Your task to perform on an android device: Open location settings Image 0: 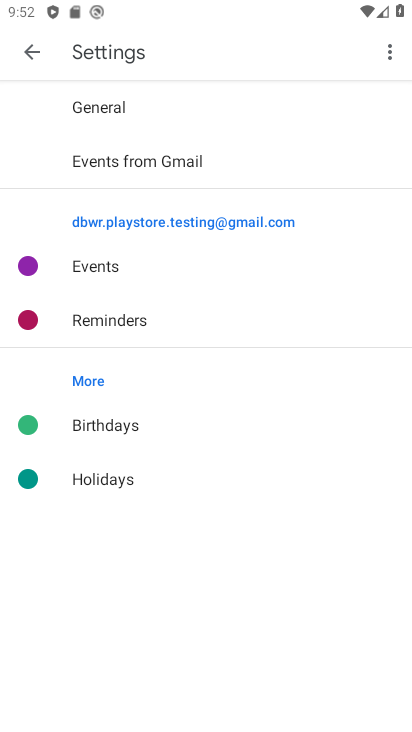
Step 0: press home button
Your task to perform on an android device: Open location settings Image 1: 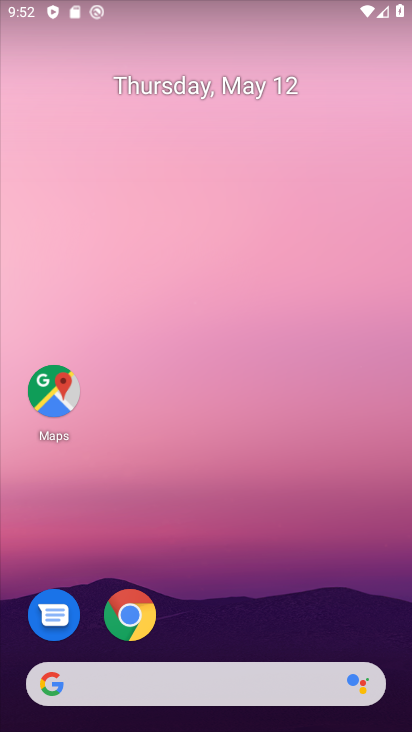
Step 1: drag from (210, 729) to (222, 144)
Your task to perform on an android device: Open location settings Image 2: 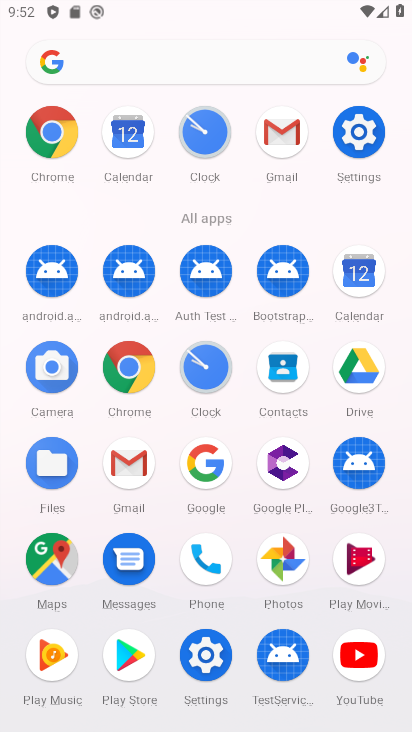
Step 2: click (372, 132)
Your task to perform on an android device: Open location settings Image 3: 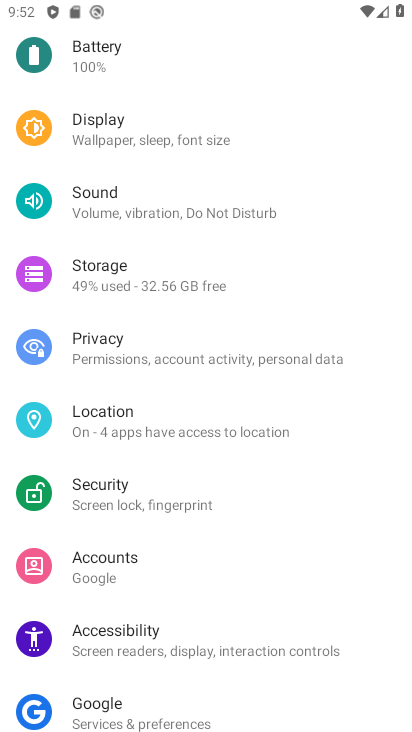
Step 3: click (101, 422)
Your task to perform on an android device: Open location settings Image 4: 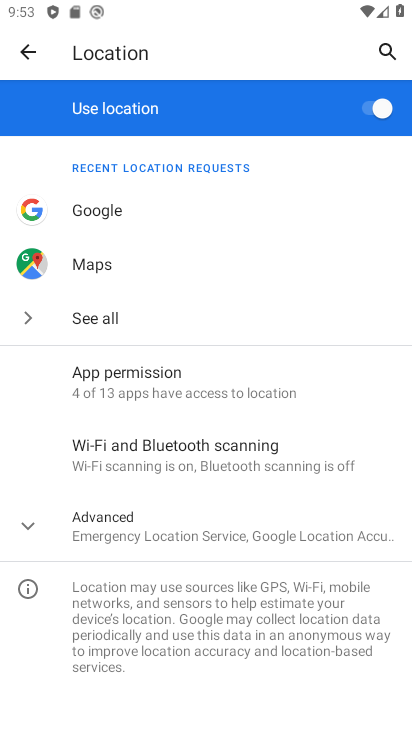
Step 4: task complete